Your task to perform on an android device: set default search engine in the chrome app Image 0: 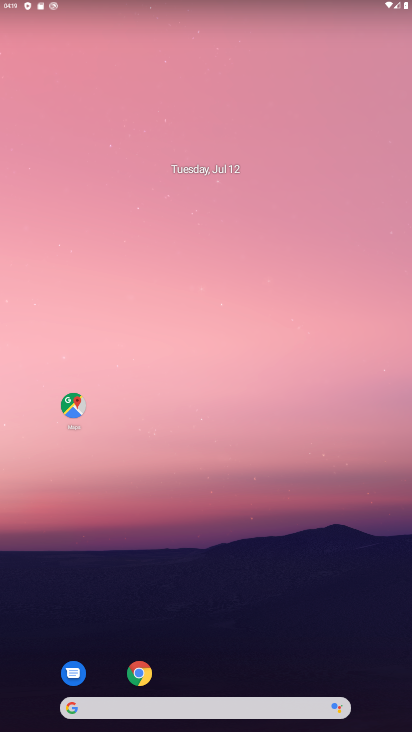
Step 0: drag from (230, 617) to (350, 129)
Your task to perform on an android device: set default search engine in the chrome app Image 1: 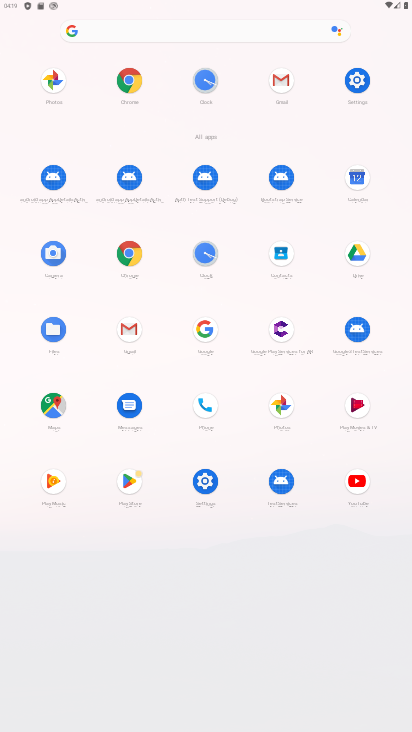
Step 1: click (127, 77)
Your task to perform on an android device: set default search engine in the chrome app Image 2: 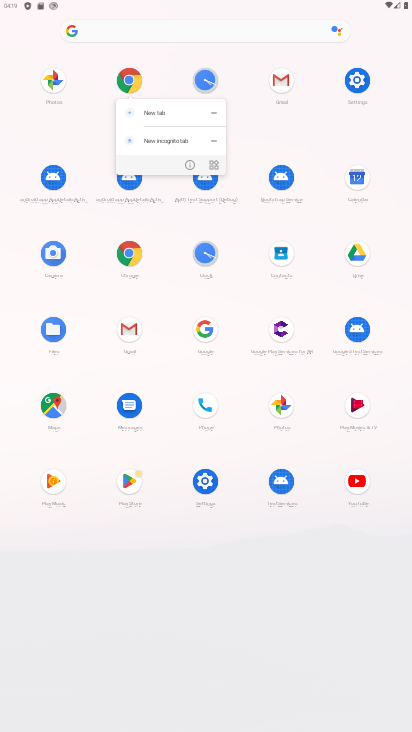
Step 2: click (122, 80)
Your task to perform on an android device: set default search engine in the chrome app Image 3: 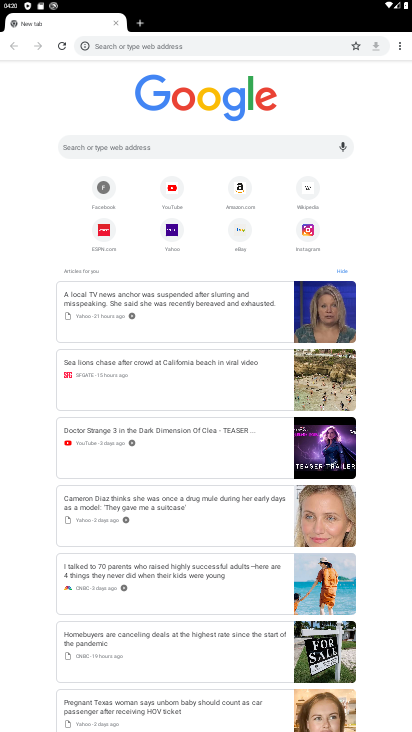
Step 3: drag from (269, 189) to (275, 330)
Your task to perform on an android device: set default search engine in the chrome app Image 4: 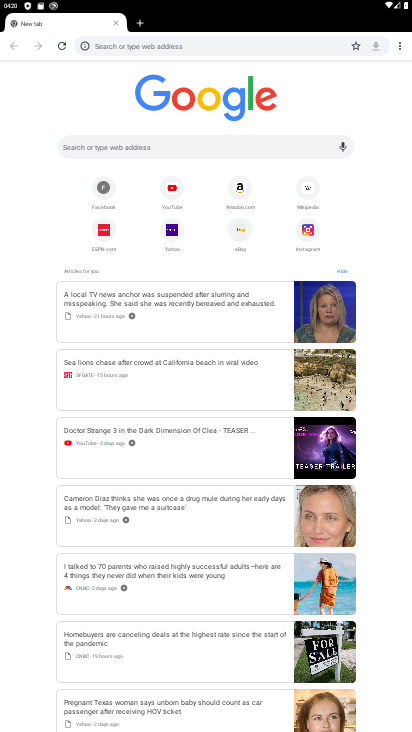
Step 4: drag from (402, 41) to (312, 215)
Your task to perform on an android device: set default search engine in the chrome app Image 5: 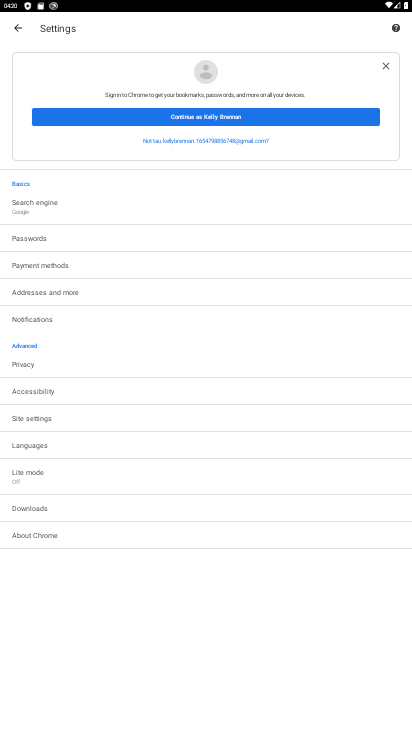
Step 5: click (69, 204)
Your task to perform on an android device: set default search engine in the chrome app Image 6: 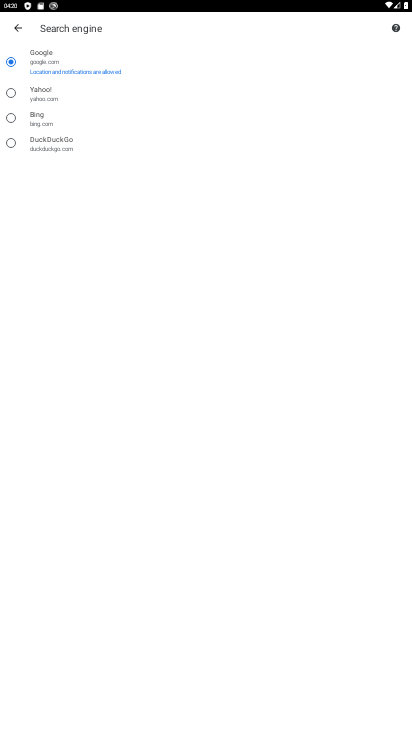
Step 6: task complete